Your task to perform on an android device: toggle translation in the chrome app Image 0: 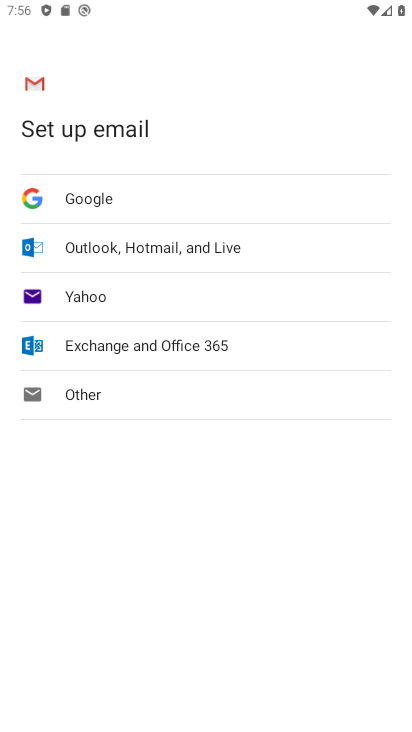
Step 0: press home button
Your task to perform on an android device: toggle translation in the chrome app Image 1: 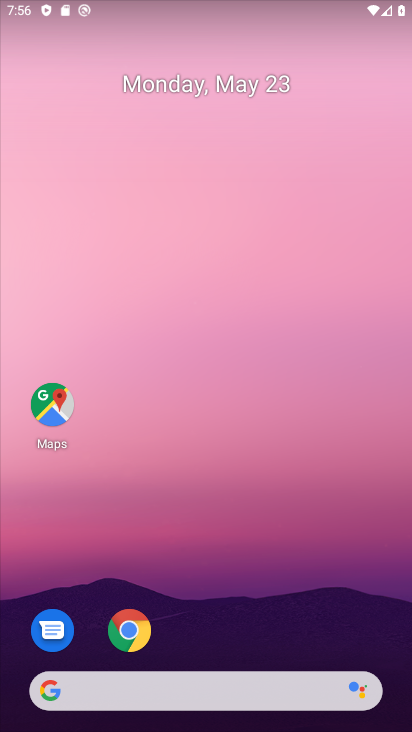
Step 1: click (125, 631)
Your task to perform on an android device: toggle translation in the chrome app Image 2: 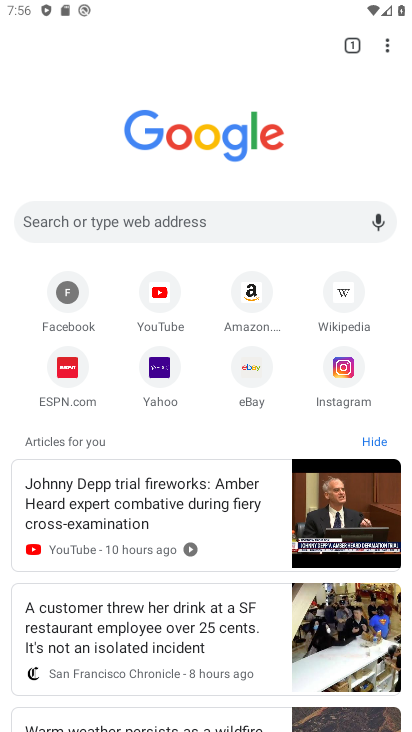
Step 2: click (389, 48)
Your task to perform on an android device: toggle translation in the chrome app Image 3: 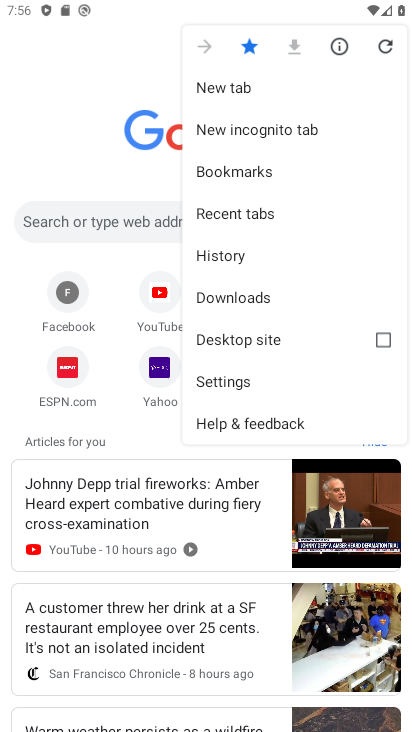
Step 3: click (229, 387)
Your task to perform on an android device: toggle translation in the chrome app Image 4: 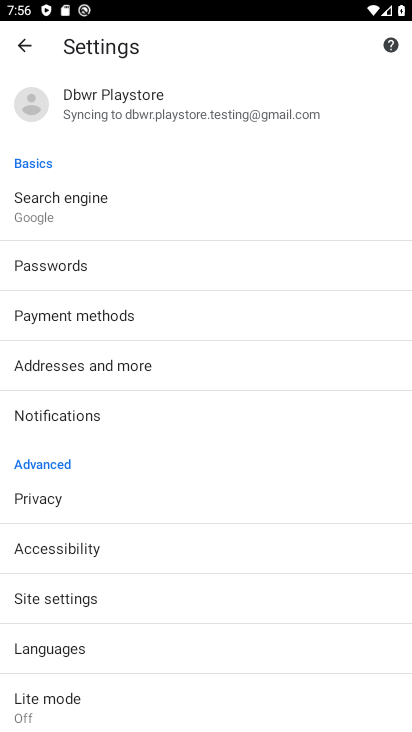
Step 4: click (48, 660)
Your task to perform on an android device: toggle translation in the chrome app Image 5: 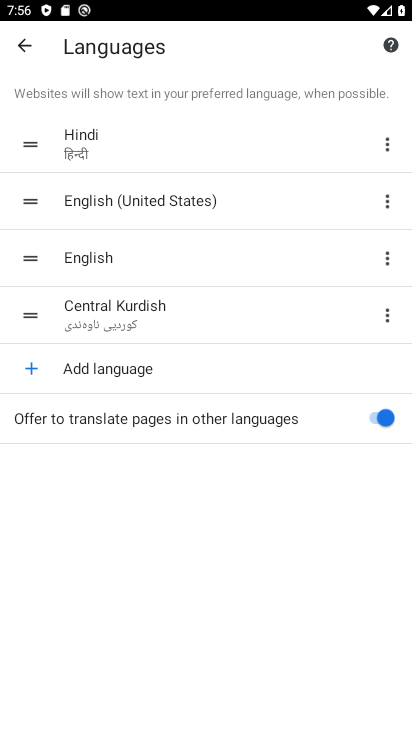
Step 5: click (85, 653)
Your task to perform on an android device: toggle translation in the chrome app Image 6: 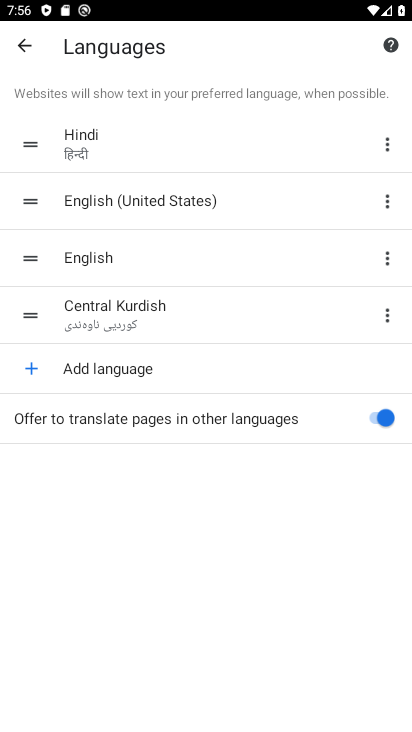
Step 6: click (371, 417)
Your task to perform on an android device: toggle translation in the chrome app Image 7: 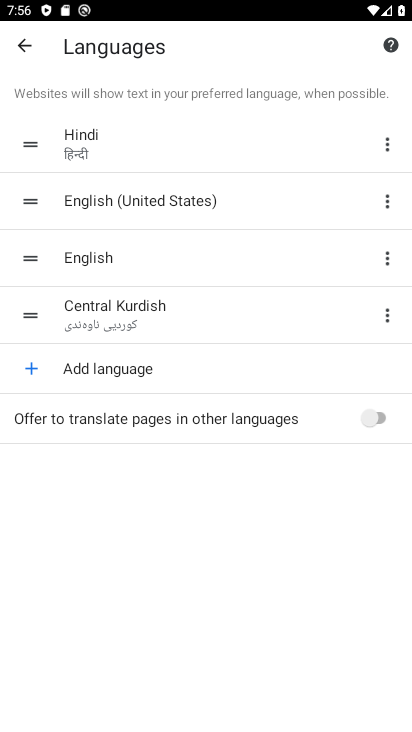
Step 7: task complete